Your task to perform on an android device: turn off location Image 0: 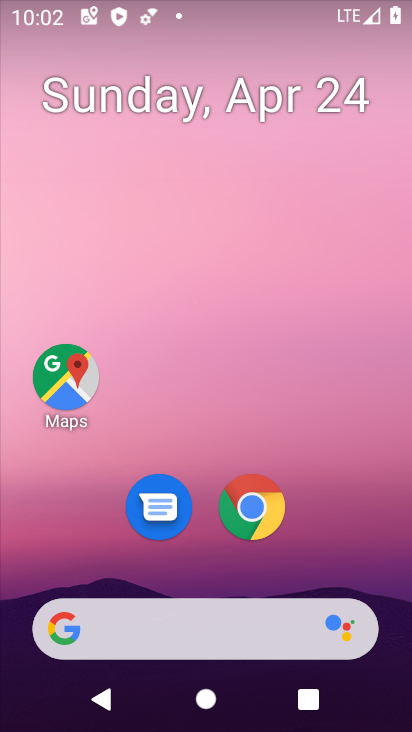
Step 0: drag from (192, 573) to (221, 67)
Your task to perform on an android device: turn off location Image 1: 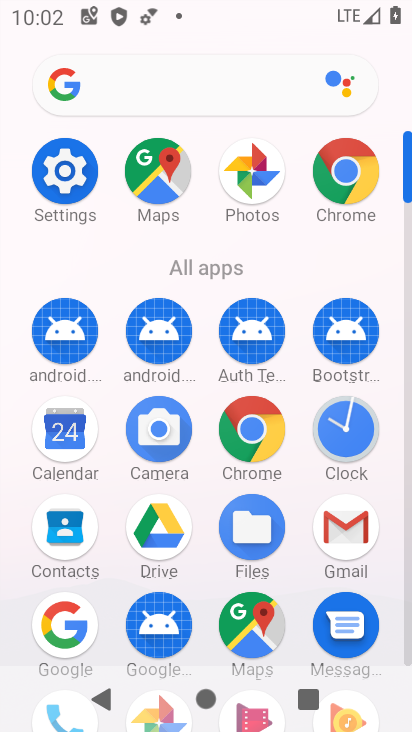
Step 1: drag from (199, 559) to (209, 232)
Your task to perform on an android device: turn off location Image 2: 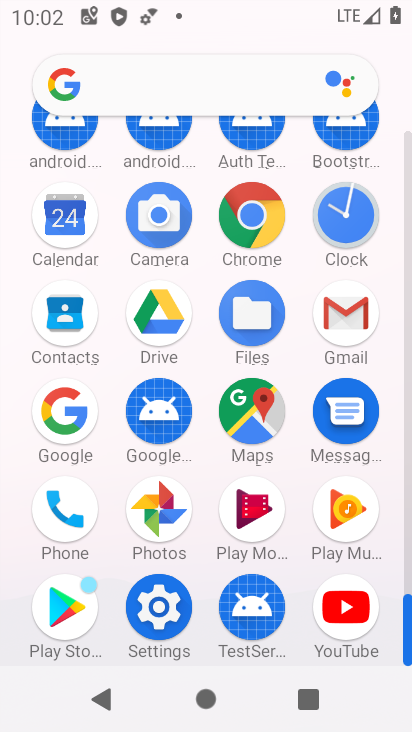
Step 2: click (150, 609)
Your task to perform on an android device: turn off location Image 3: 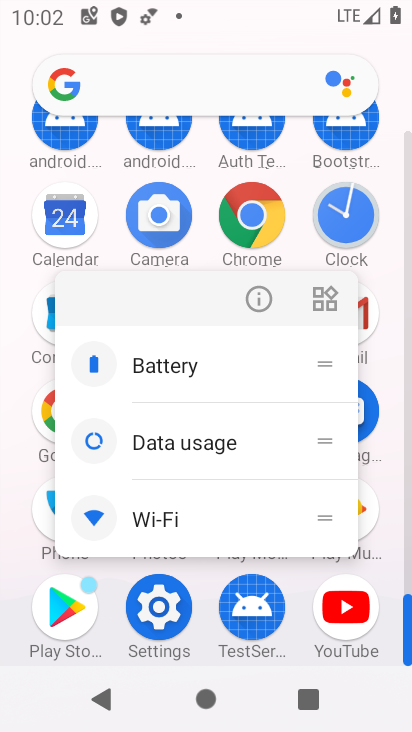
Step 3: click (257, 293)
Your task to perform on an android device: turn off location Image 4: 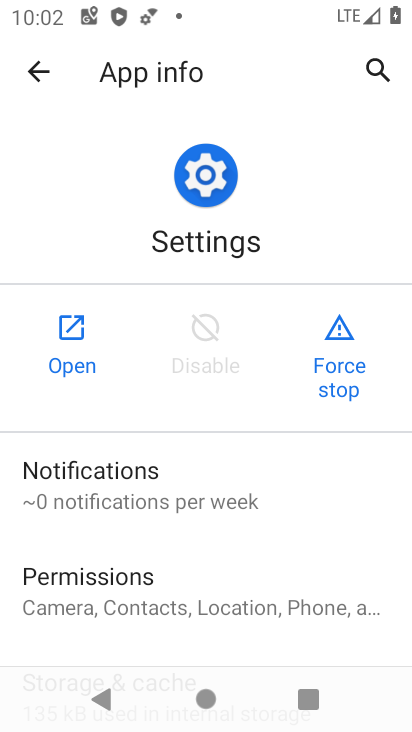
Step 4: click (68, 363)
Your task to perform on an android device: turn off location Image 5: 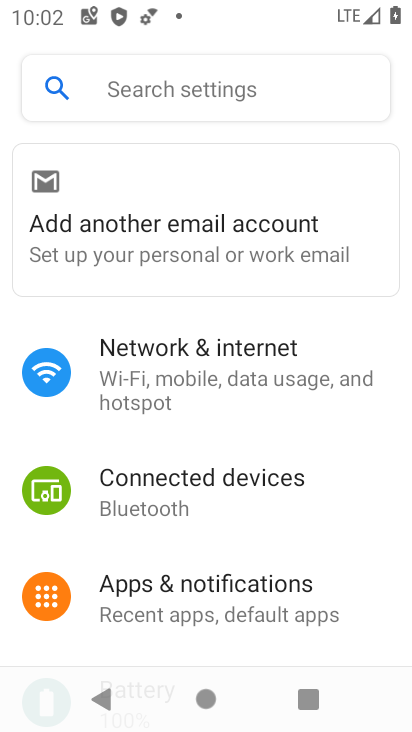
Step 5: drag from (186, 436) to (201, 202)
Your task to perform on an android device: turn off location Image 6: 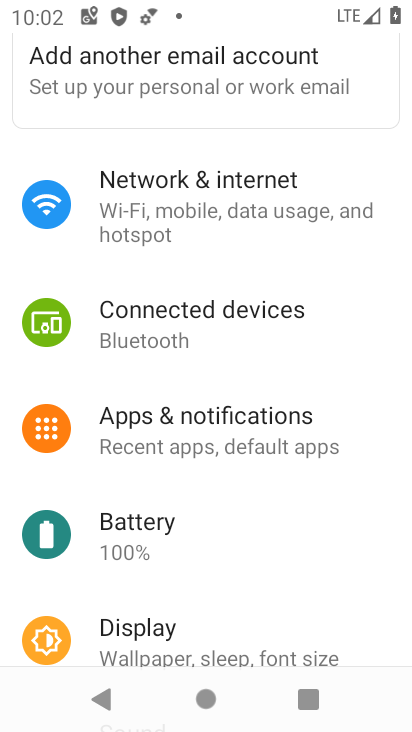
Step 6: drag from (212, 545) to (249, 112)
Your task to perform on an android device: turn off location Image 7: 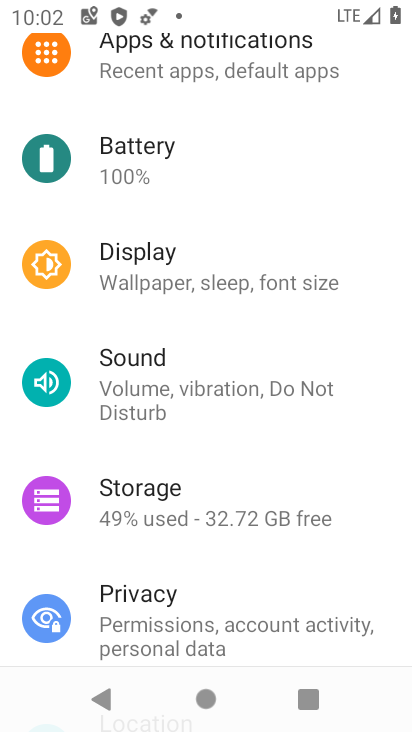
Step 7: drag from (221, 594) to (261, 212)
Your task to perform on an android device: turn off location Image 8: 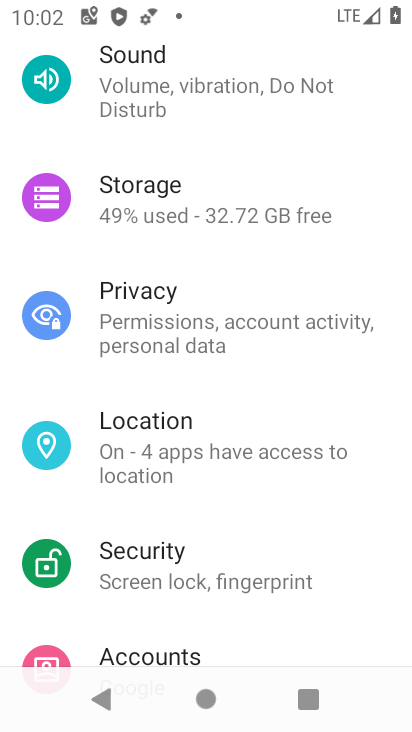
Step 8: click (133, 463)
Your task to perform on an android device: turn off location Image 9: 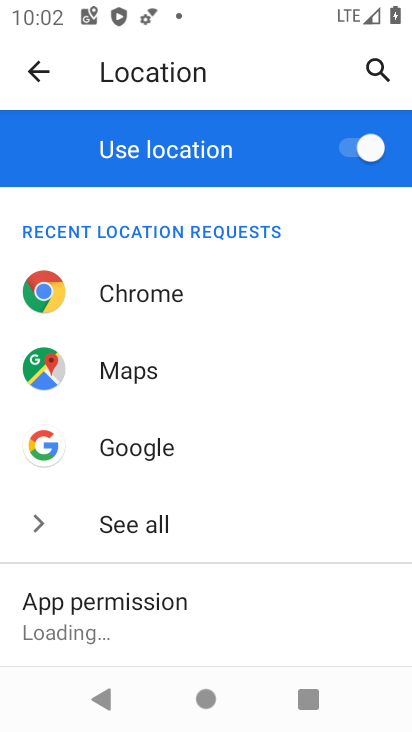
Step 9: click (350, 145)
Your task to perform on an android device: turn off location Image 10: 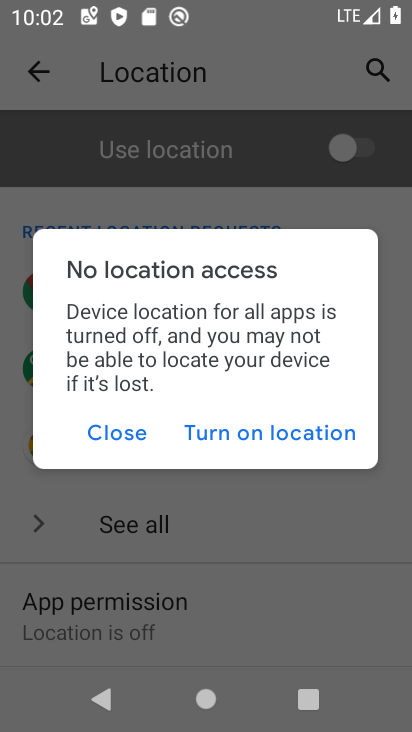
Step 10: task complete